Your task to perform on an android device: turn off translation in the chrome app Image 0: 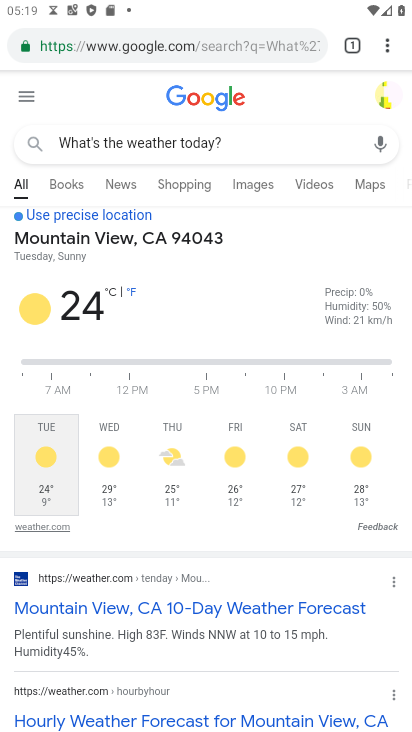
Step 0: press home button
Your task to perform on an android device: turn off translation in the chrome app Image 1: 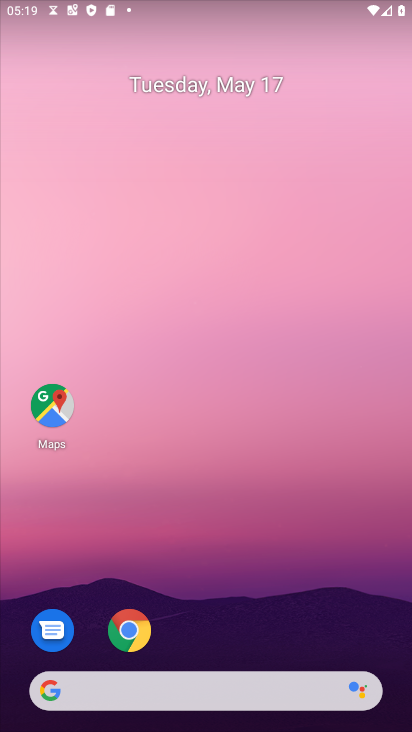
Step 1: click (138, 636)
Your task to perform on an android device: turn off translation in the chrome app Image 2: 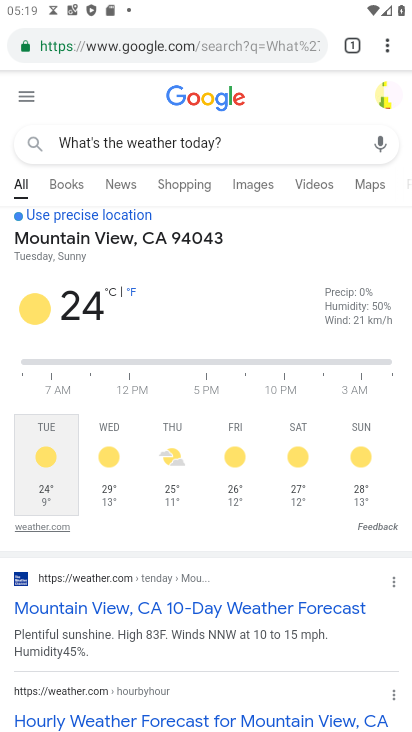
Step 2: drag from (387, 52) to (298, 495)
Your task to perform on an android device: turn off translation in the chrome app Image 3: 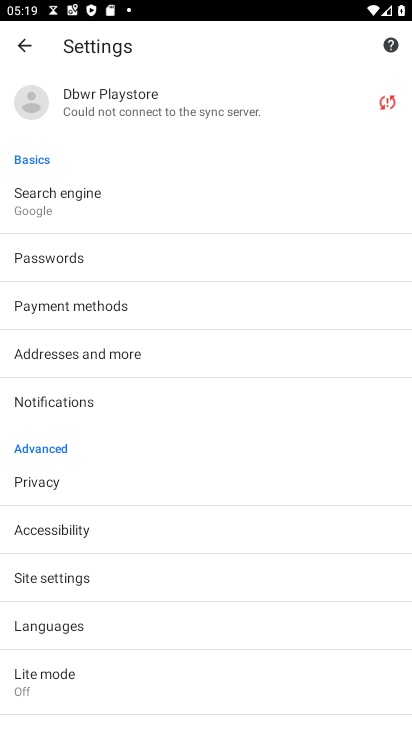
Step 3: click (60, 629)
Your task to perform on an android device: turn off translation in the chrome app Image 4: 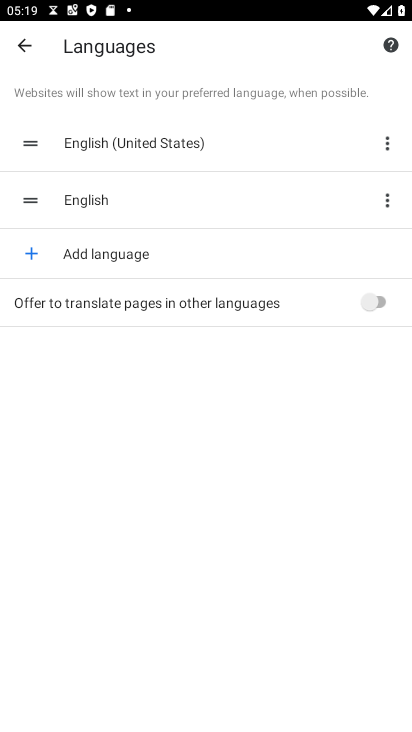
Step 4: task complete